Your task to perform on an android device: turn off notifications settings in the gmail app Image 0: 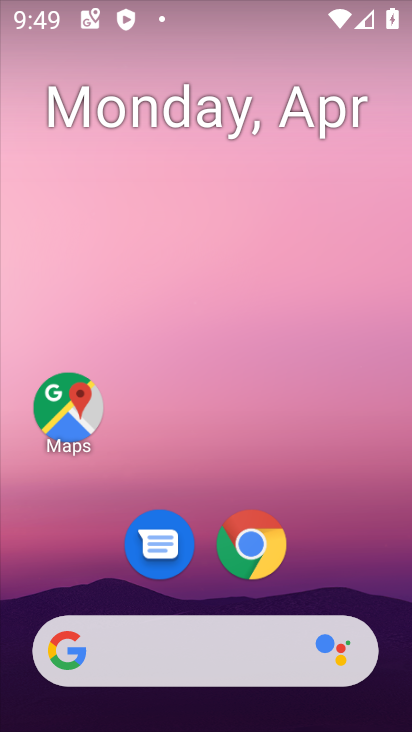
Step 0: drag from (293, 565) to (308, 305)
Your task to perform on an android device: turn off notifications settings in the gmail app Image 1: 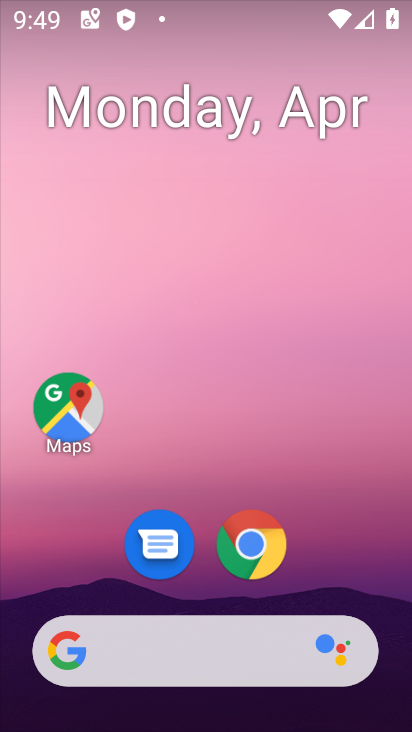
Step 1: drag from (300, 594) to (330, 112)
Your task to perform on an android device: turn off notifications settings in the gmail app Image 2: 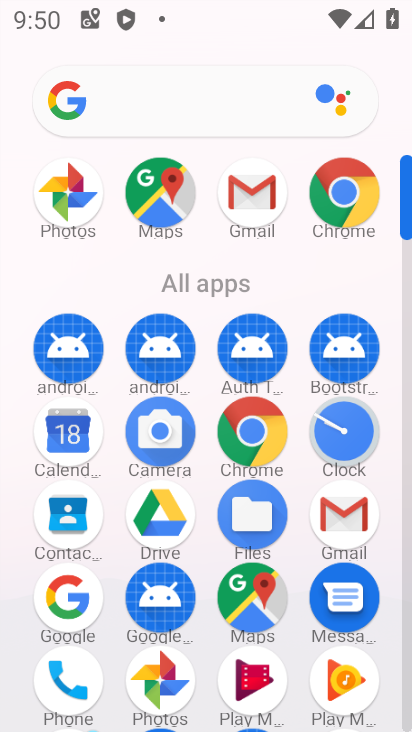
Step 2: drag from (230, 581) to (288, 337)
Your task to perform on an android device: turn off notifications settings in the gmail app Image 3: 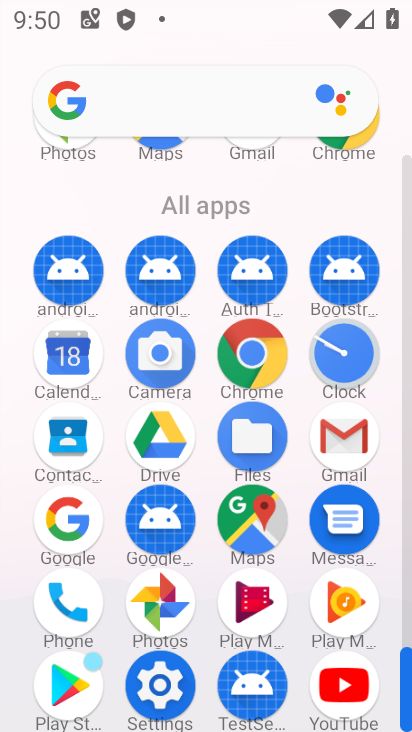
Step 3: click (346, 419)
Your task to perform on an android device: turn off notifications settings in the gmail app Image 4: 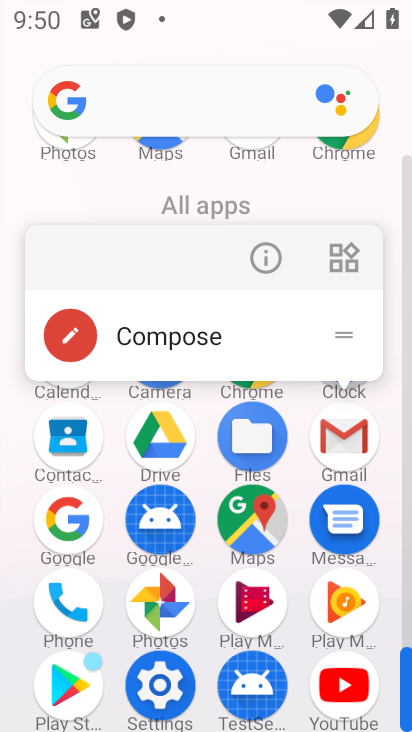
Step 4: click (343, 421)
Your task to perform on an android device: turn off notifications settings in the gmail app Image 5: 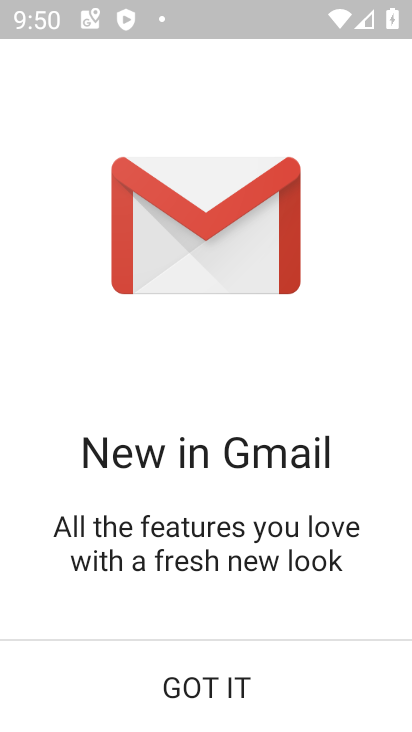
Step 5: click (231, 667)
Your task to perform on an android device: turn off notifications settings in the gmail app Image 6: 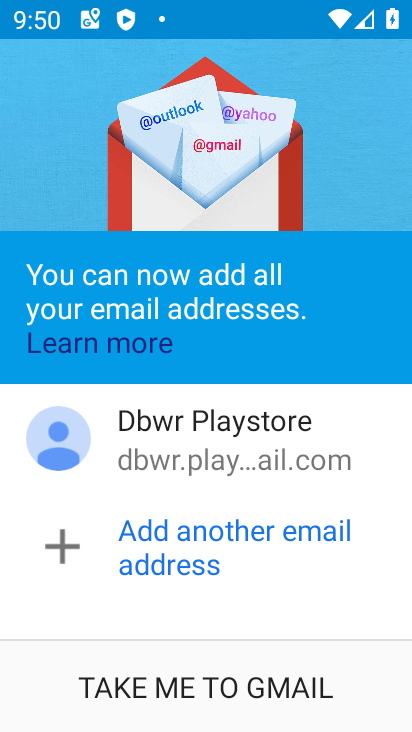
Step 6: click (207, 681)
Your task to perform on an android device: turn off notifications settings in the gmail app Image 7: 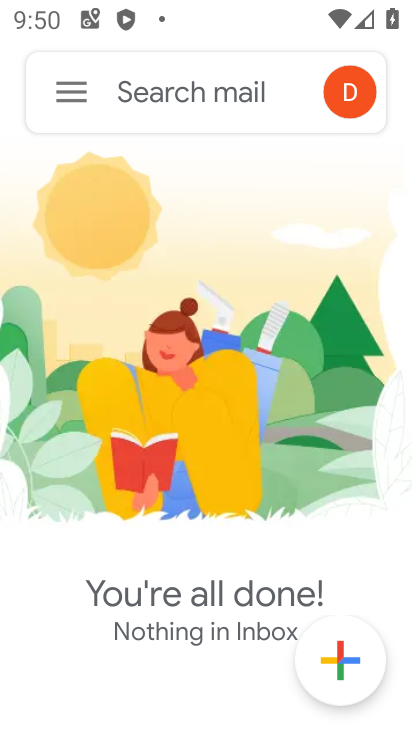
Step 7: click (82, 79)
Your task to perform on an android device: turn off notifications settings in the gmail app Image 8: 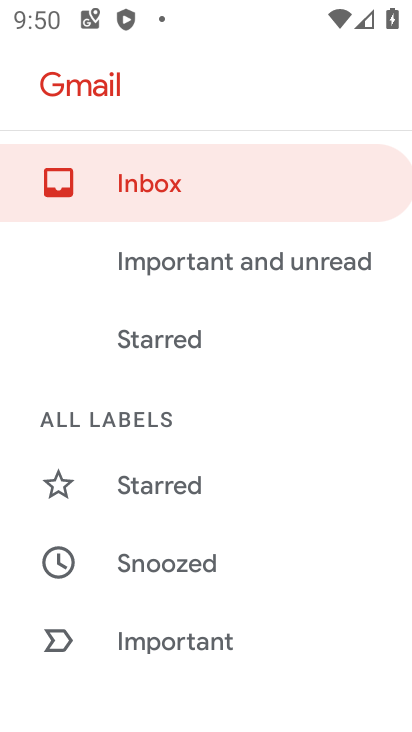
Step 8: drag from (188, 620) to (243, 116)
Your task to perform on an android device: turn off notifications settings in the gmail app Image 9: 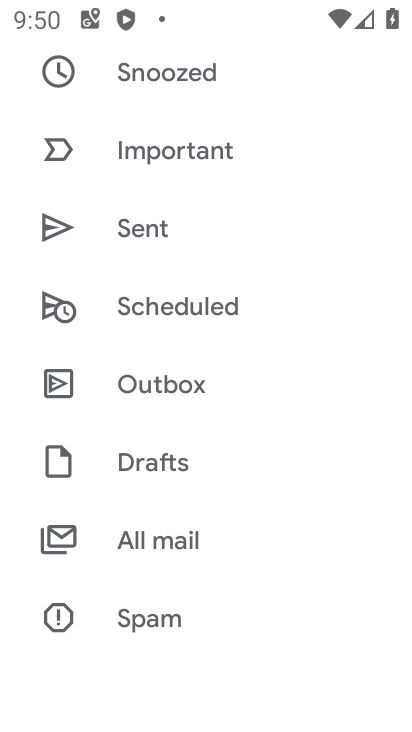
Step 9: drag from (205, 595) to (265, 172)
Your task to perform on an android device: turn off notifications settings in the gmail app Image 10: 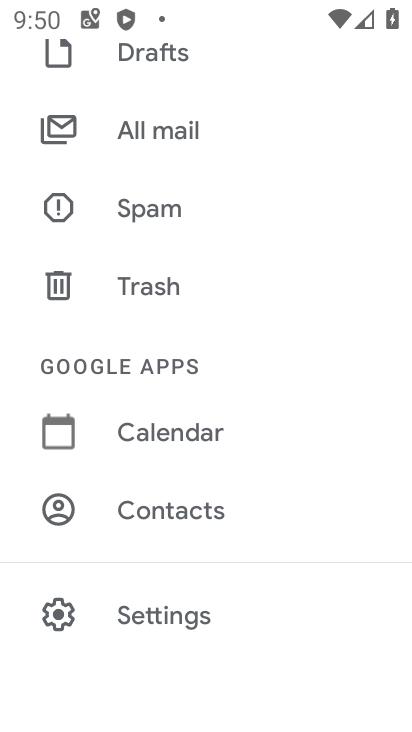
Step 10: click (172, 604)
Your task to perform on an android device: turn off notifications settings in the gmail app Image 11: 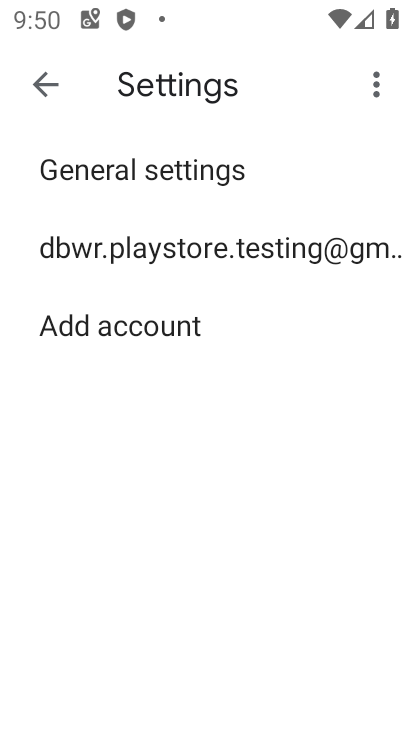
Step 11: click (162, 242)
Your task to perform on an android device: turn off notifications settings in the gmail app Image 12: 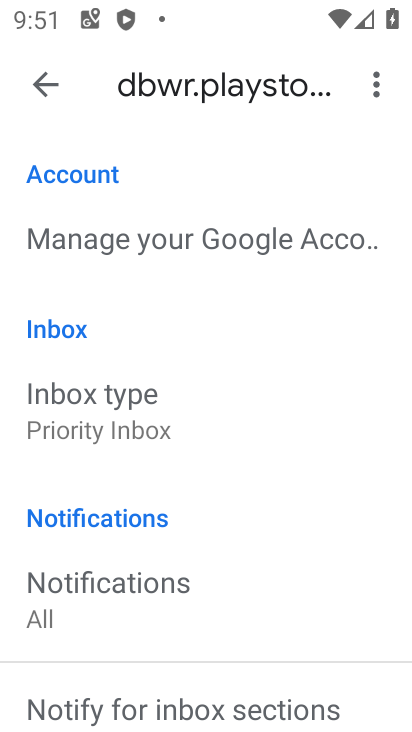
Step 12: drag from (207, 607) to (286, 273)
Your task to perform on an android device: turn off notifications settings in the gmail app Image 13: 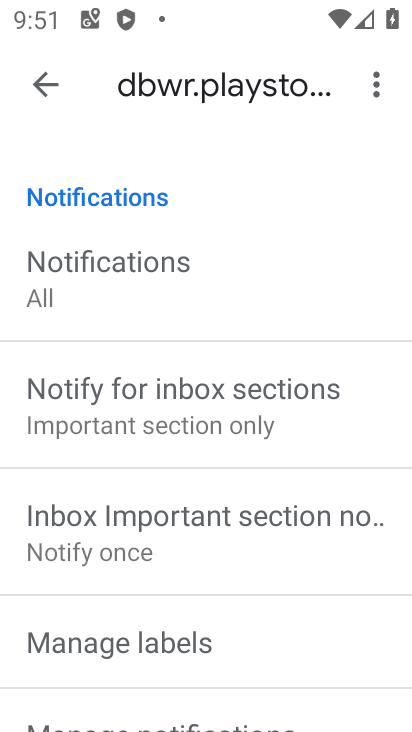
Step 13: click (161, 275)
Your task to perform on an android device: turn off notifications settings in the gmail app Image 14: 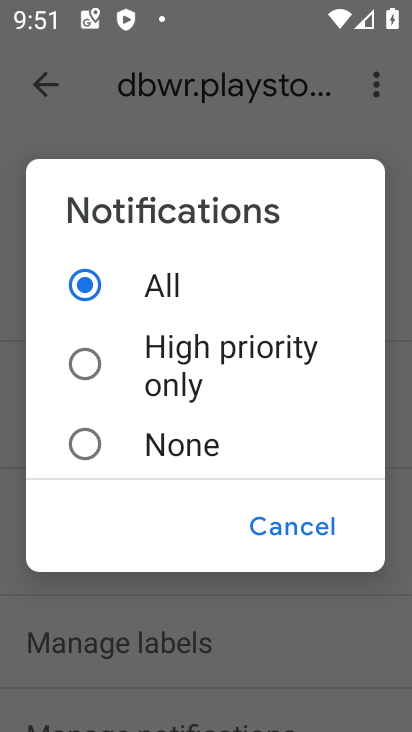
Step 14: click (135, 437)
Your task to perform on an android device: turn off notifications settings in the gmail app Image 15: 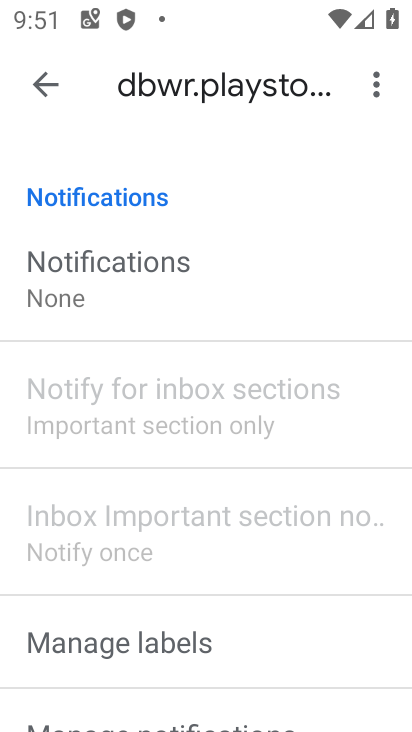
Step 15: task complete